Your task to perform on an android device: Open calendar and show me the first week of next month Image 0: 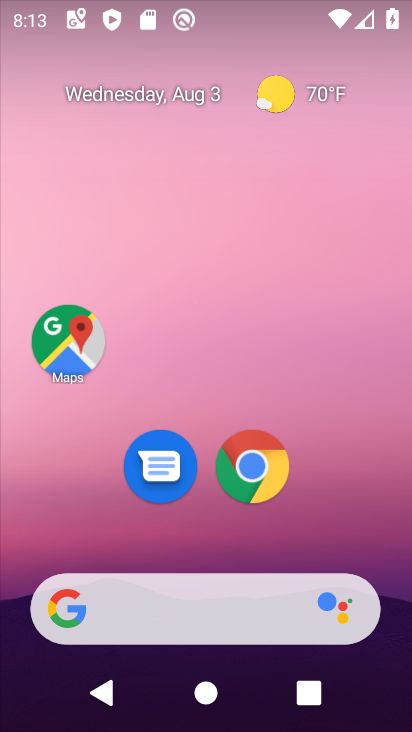
Step 0: drag from (359, 481) to (339, 172)
Your task to perform on an android device: Open calendar and show me the first week of next month Image 1: 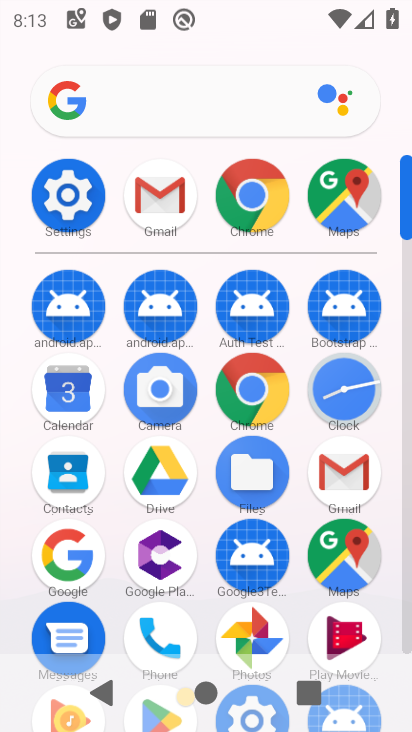
Step 1: drag from (206, 540) to (204, 407)
Your task to perform on an android device: Open calendar and show me the first week of next month Image 2: 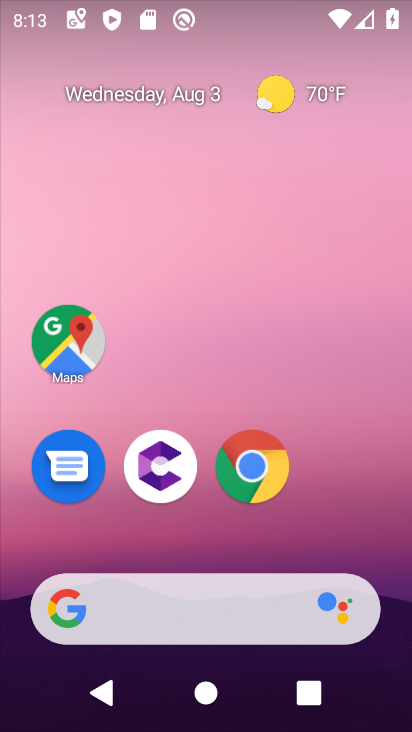
Step 2: drag from (379, 539) to (341, 210)
Your task to perform on an android device: Open calendar and show me the first week of next month Image 3: 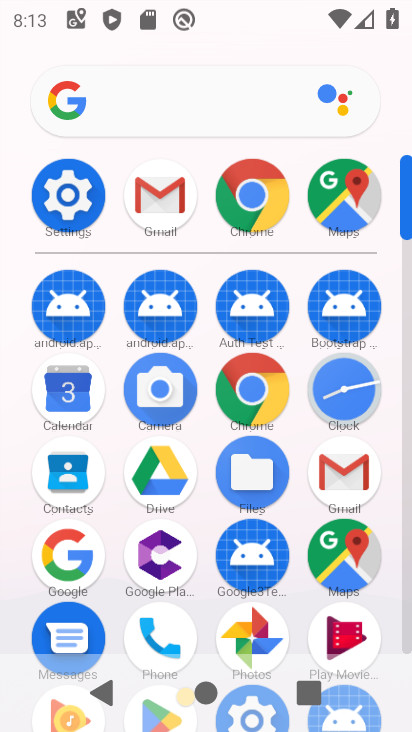
Step 3: click (84, 393)
Your task to perform on an android device: Open calendar and show me the first week of next month Image 4: 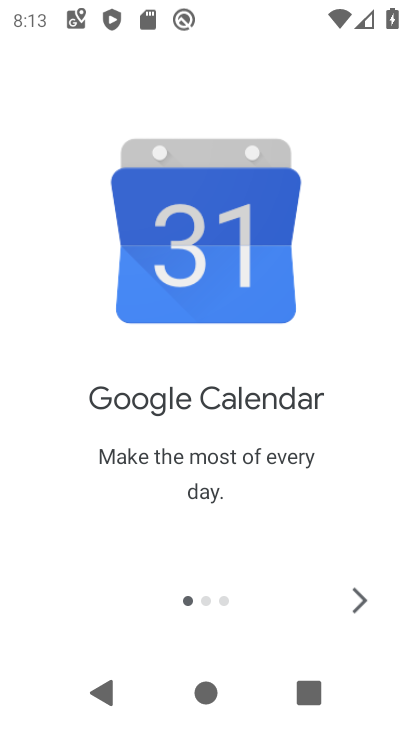
Step 4: click (369, 581)
Your task to perform on an android device: Open calendar and show me the first week of next month Image 5: 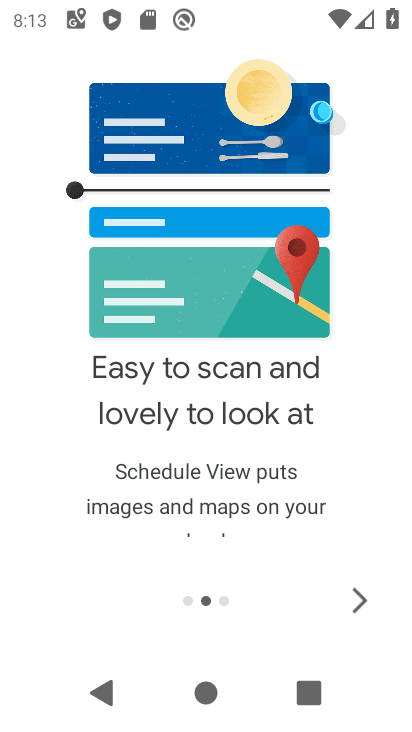
Step 5: click (369, 580)
Your task to perform on an android device: Open calendar and show me the first week of next month Image 6: 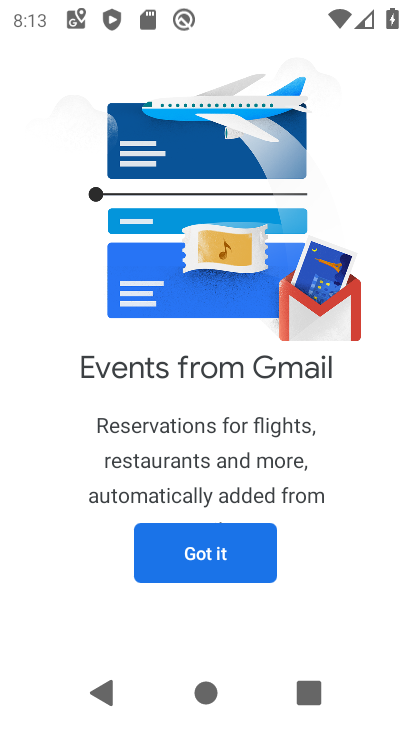
Step 6: click (258, 553)
Your task to perform on an android device: Open calendar and show me the first week of next month Image 7: 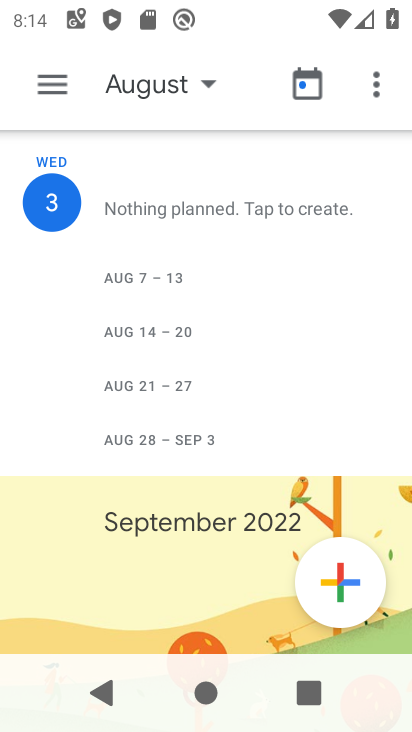
Step 7: click (170, 87)
Your task to perform on an android device: Open calendar and show me the first week of next month Image 8: 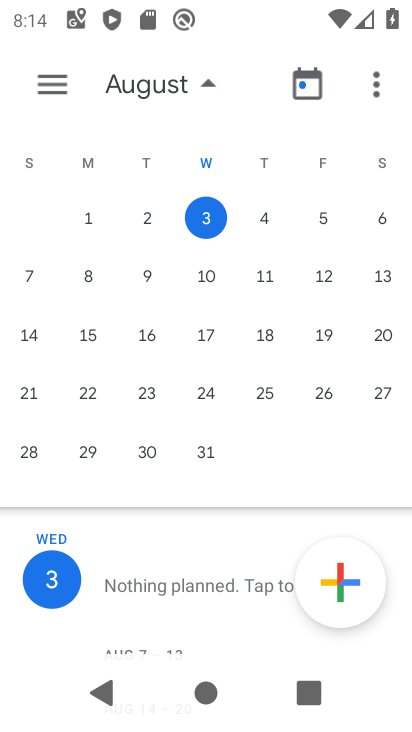
Step 8: drag from (371, 359) to (51, 311)
Your task to perform on an android device: Open calendar and show me the first week of next month Image 9: 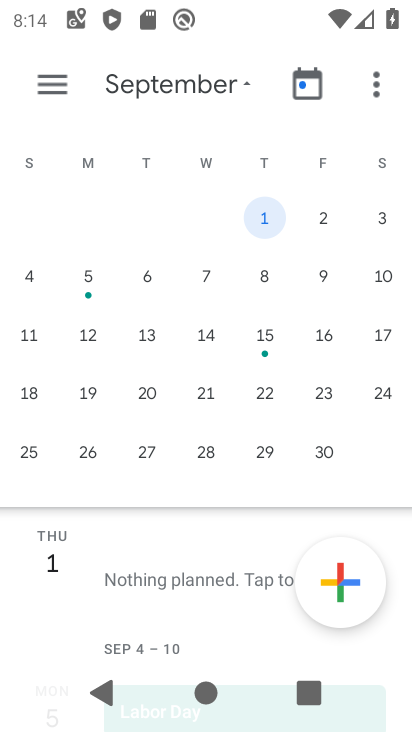
Step 9: click (145, 275)
Your task to perform on an android device: Open calendar and show me the first week of next month Image 10: 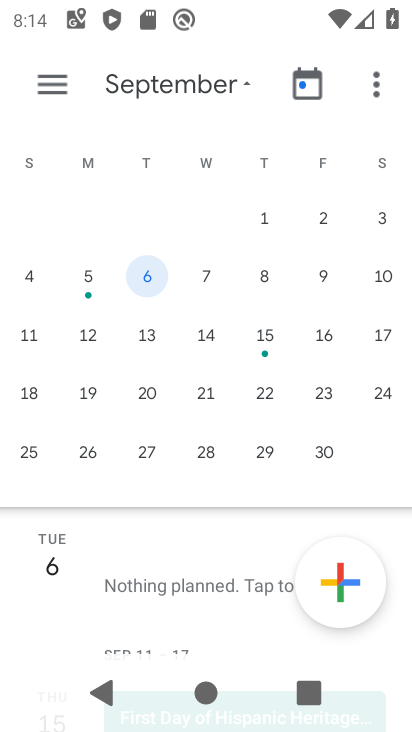
Step 10: click (48, 76)
Your task to perform on an android device: Open calendar and show me the first week of next month Image 11: 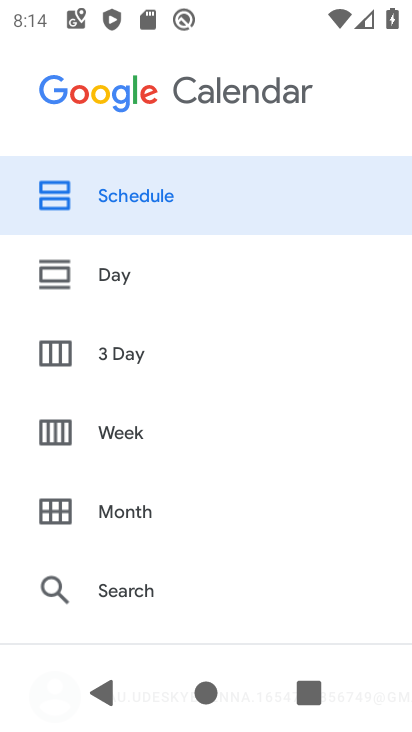
Step 11: click (118, 420)
Your task to perform on an android device: Open calendar and show me the first week of next month Image 12: 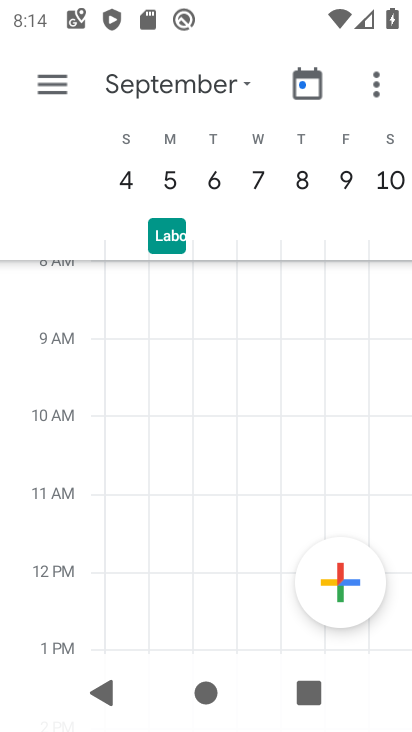
Step 12: task complete